Your task to perform on an android device: turn off picture-in-picture Image 0: 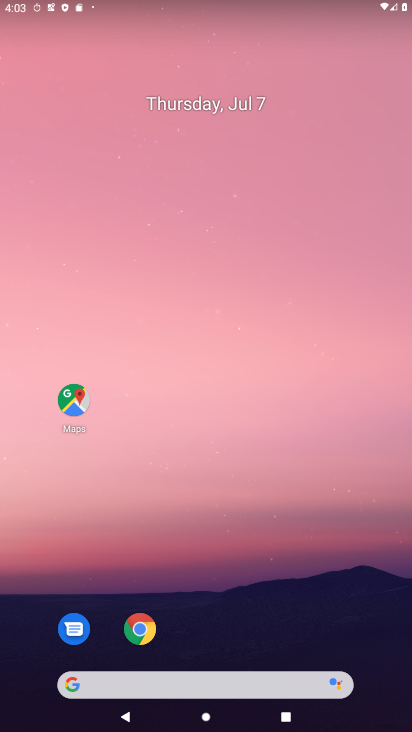
Step 0: drag from (251, 643) to (242, 140)
Your task to perform on an android device: turn off picture-in-picture Image 1: 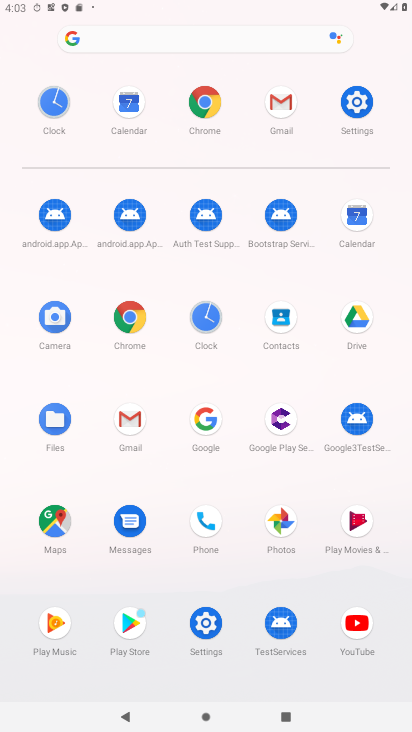
Step 1: click (353, 114)
Your task to perform on an android device: turn off picture-in-picture Image 2: 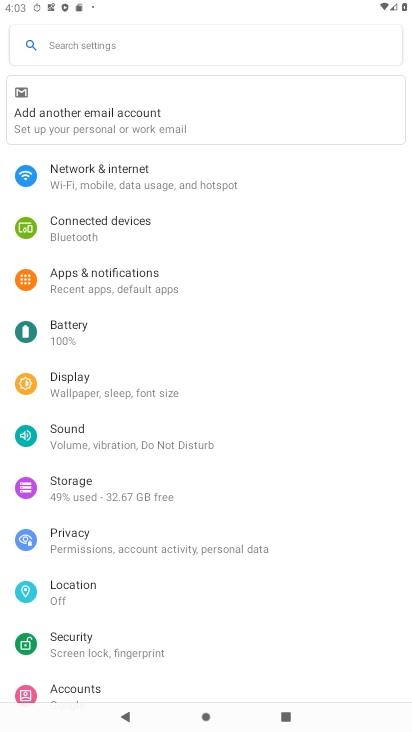
Step 2: drag from (132, 624) to (174, 221)
Your task to perform on an android device: turn off picture-in-picture Image 3: 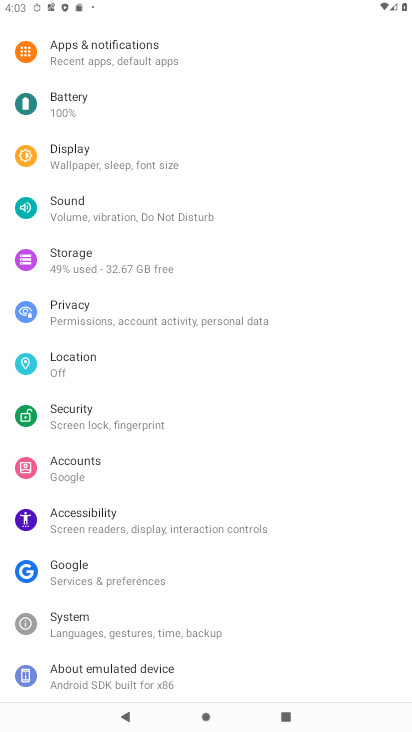
Step 3: click (169, 63)
Your task to perform on an android device: turn off picture-in-picture Image 4: 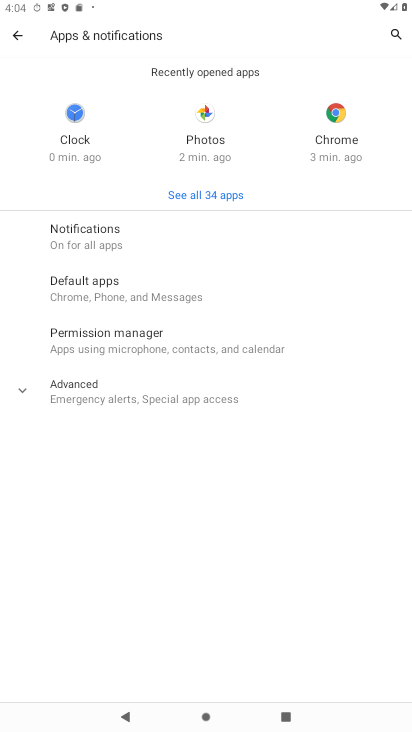
Step 4: click (102, 396)
Your task to perform on an android device: turn off picture-in-picture Image 5: 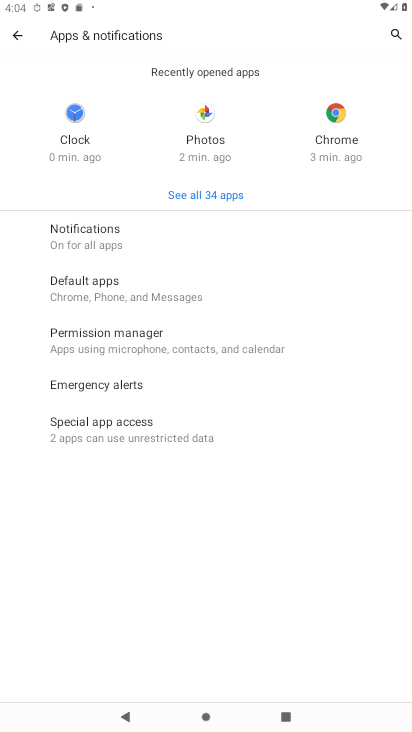
Step 5: click (79, 432)
Your task to perform on an android device: turn off picture-in-picture Image 6: 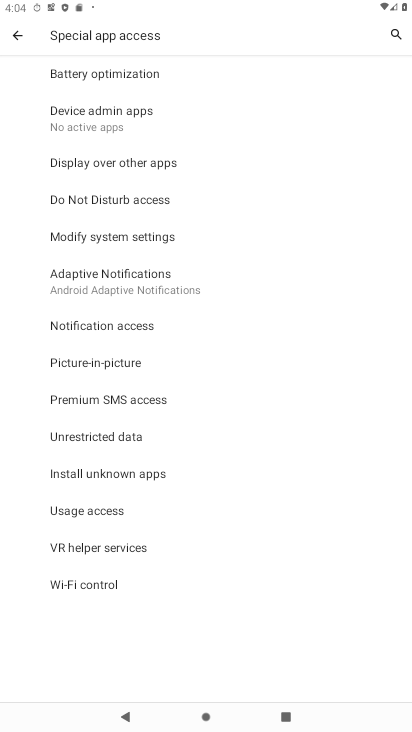
Step 6: click (93, 360)
Your task to perform on an android device: turn off picture-in-picture Image 7: 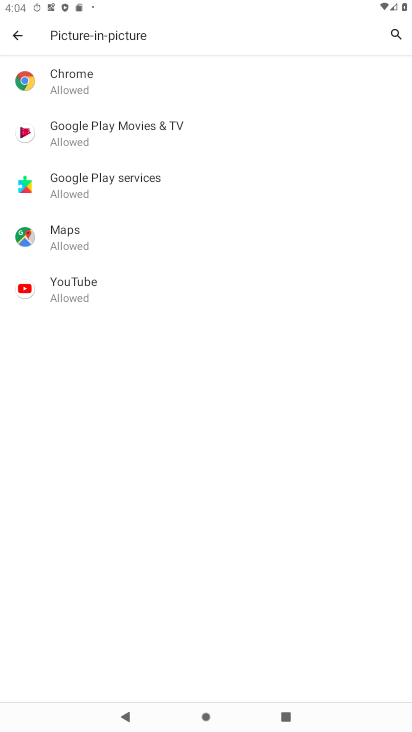
Step 7: click (72, 80)
Your task to perform on an android device: turn off picture-in-picture Image 8: 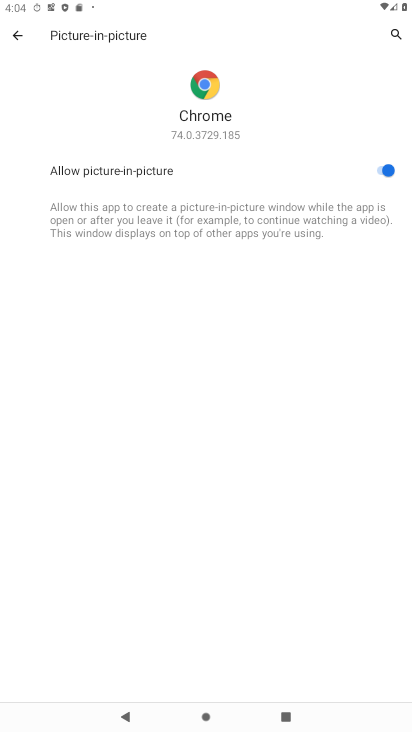
Step 8: click (377, 170)
Your task to perform on an android device: turn off picture-in-picture Image 9: 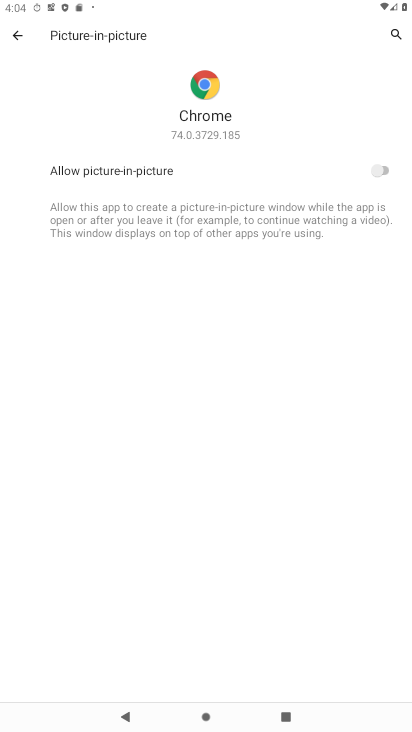
Step 9: task complete